Your task to perform on an android device: Go to network settings Image 0: 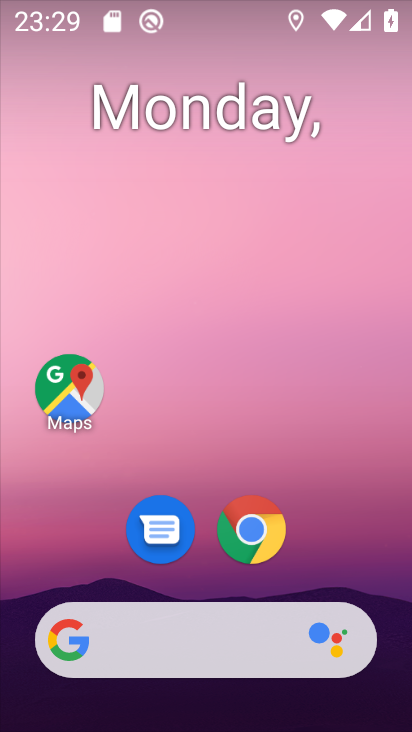
Step 0: drag from (342, 536) to (365, 280)
Your task to perform on an android device: Go to network settings Image 1: 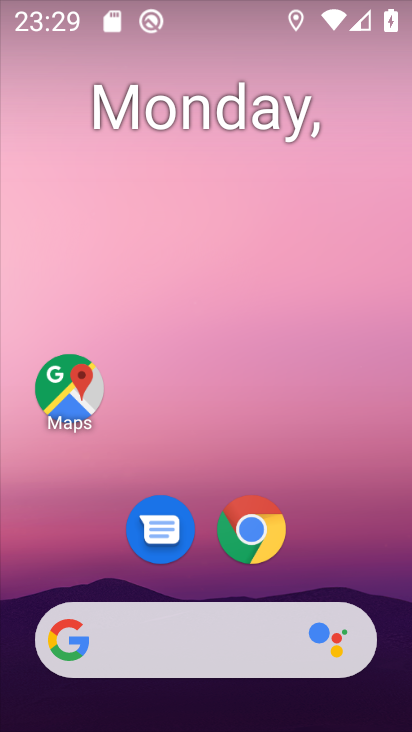
Step 1: drag from (315, 555) to (268, 120)
Your task to perform on an android device: Go to network settings Image 2: 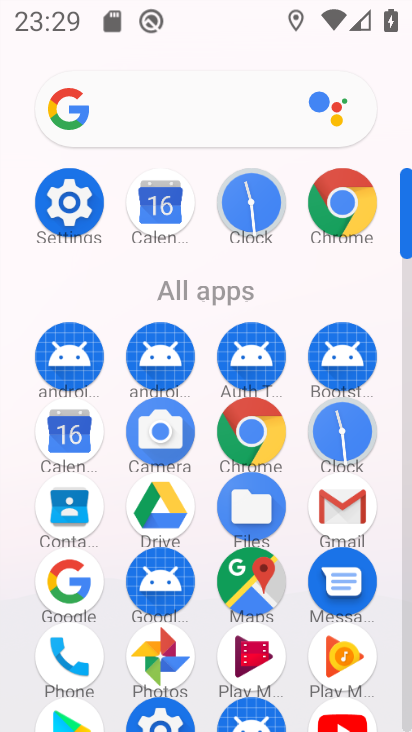
Step 2: click (90, 218)
Your task to perform on an android device: Go to network settings Image 3: 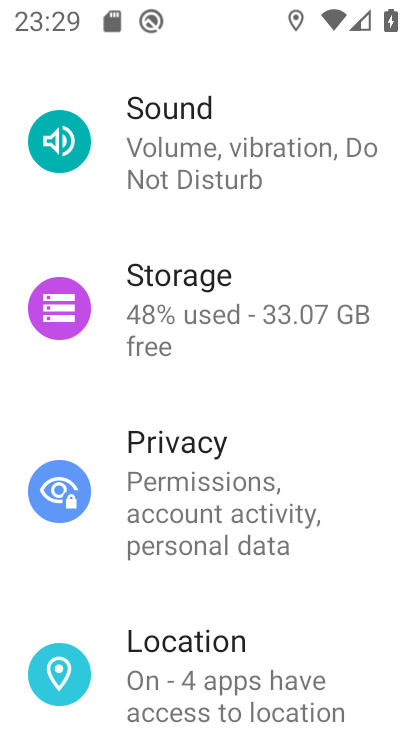
Step 3: drag from (282, 213) to (302, 618)
Your task to perform on an android device: Go to network settings Image 4: 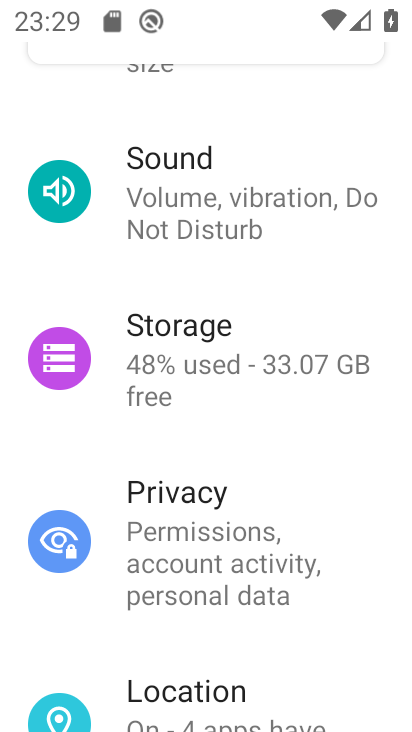
Step 4: drag from (326, 278) to (324, 625)
Your task to perform on an android device: Go to network settings Image 5: 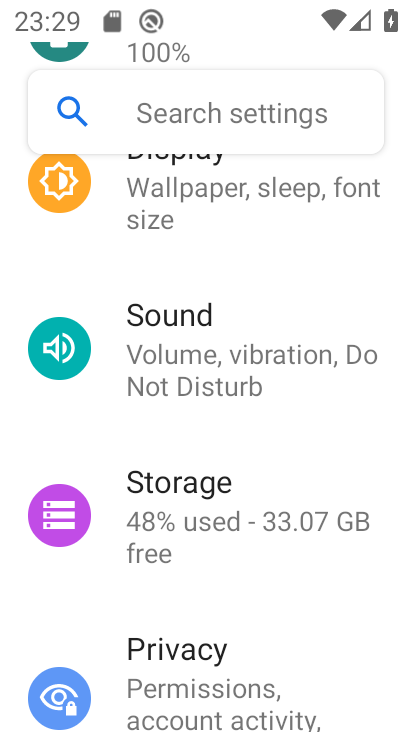
Step 5: drag from (315, 260) to (330, 564)
Your task to perform on an android device: Go to network settings Image 6: 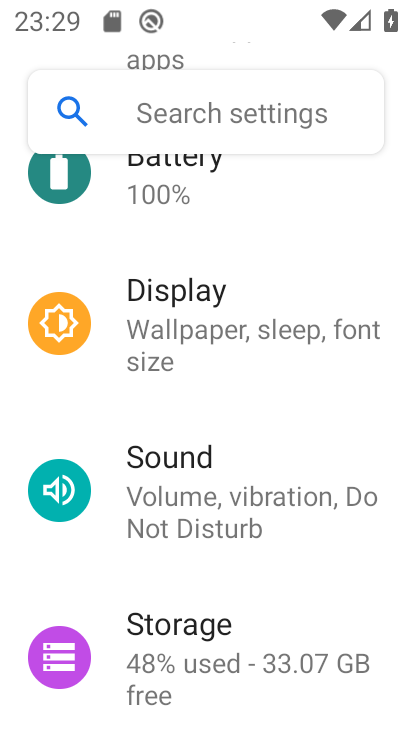
Step 6: drag from (343, 190) to (333, 548)
Your task to perform on an android device: Go to network settings Image 7: 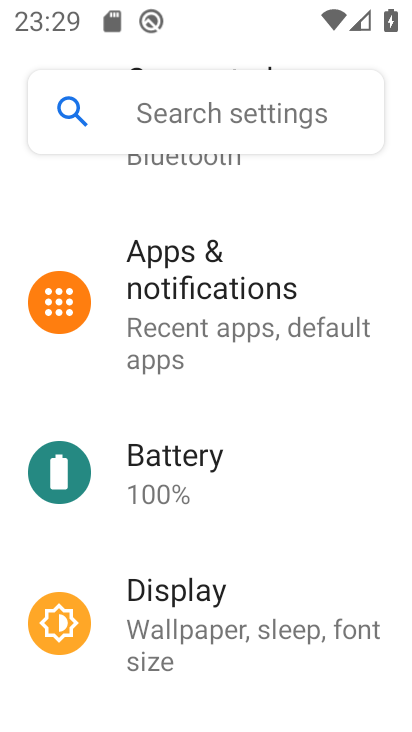
Step 7: drag from (303, 196) to (287, 514)
Your task to perform on an android device: Go to network settings Image 8: 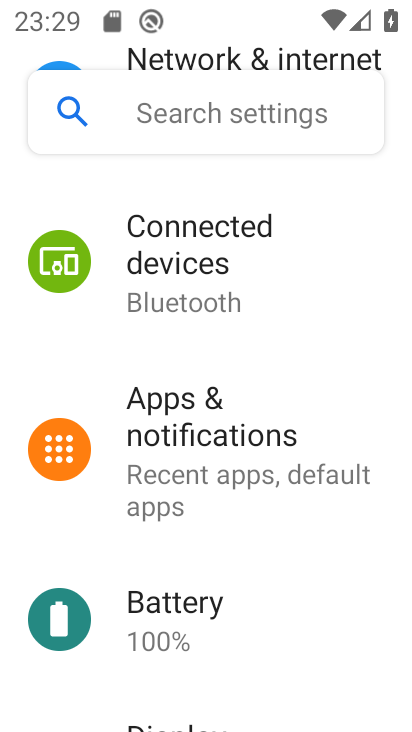
Step 8: drag from (278, 263) to (293, 584)
Your task to perform on an android device: Go to network settings Image 9: 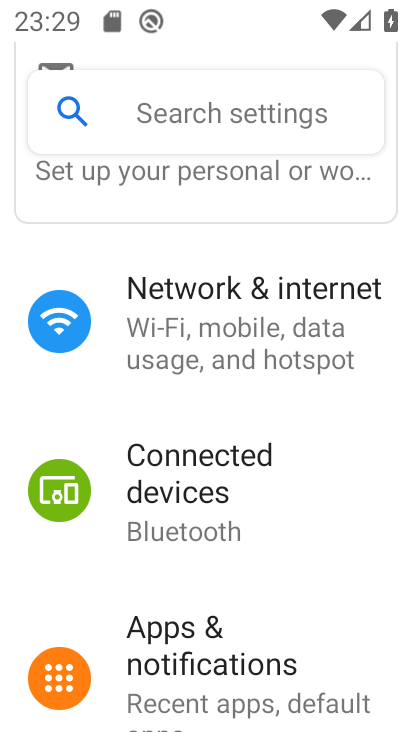
Step 9: click (297, 355)
Your task to perform on an android device: Go to network settings Image 10: 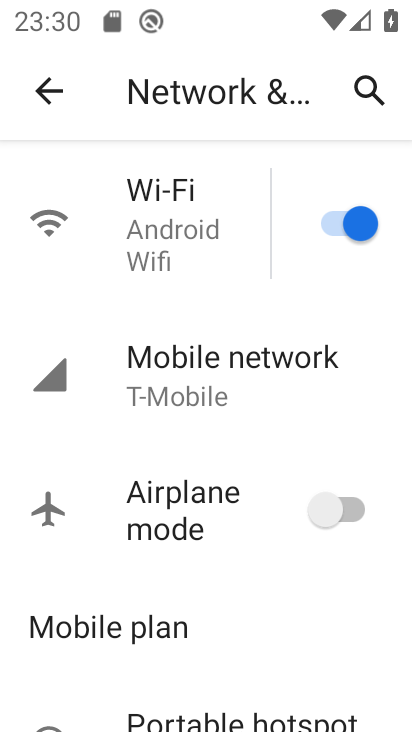
Step 10: task complete